Your task to perform on an android device: change the clock style Image 0: 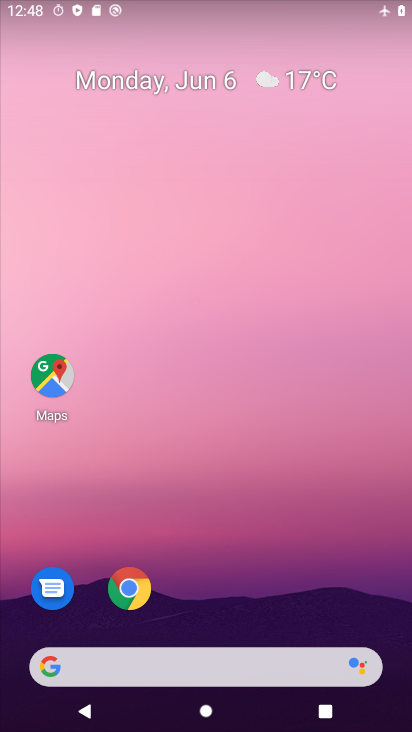
Step 0: drag from (276, 309) to (288, 150)
Your task to perform on an android device: change the clock style Image 1: 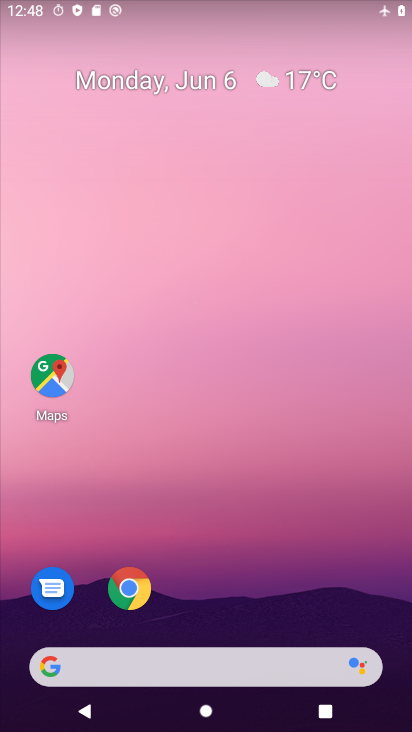
Step 1: drag from (257, 423) to (268, 21)
Your task to perform on an android device: change the clock style Image 2: 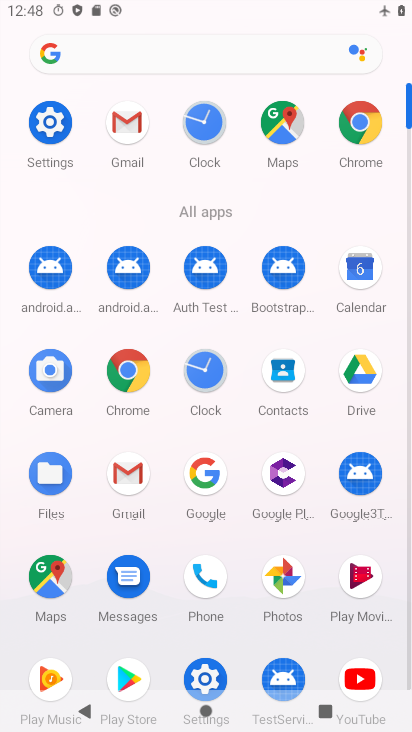
Step 2: click (209, 376)
Your task to perform on an android device: change the clock style Image 3: 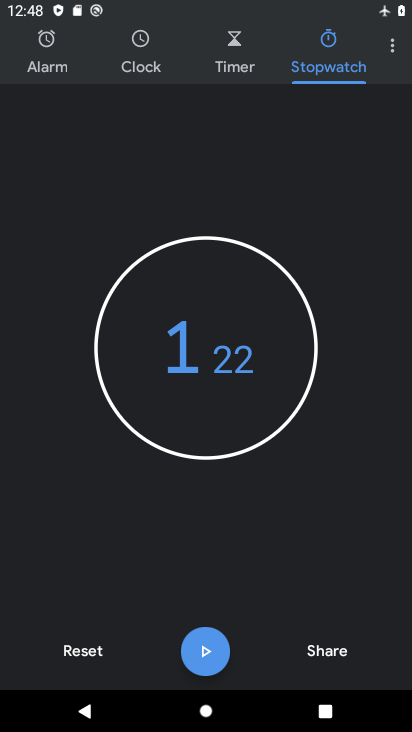
Step 3: click (399, 44)
Your task to perform on an android device: change the clock style Image 4: 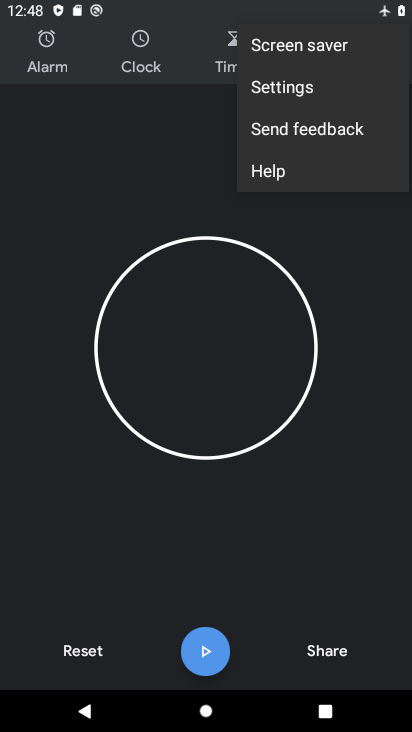
Step 4: click (296, 93)
Your task to perform on an android device: change the clock style Image 5: 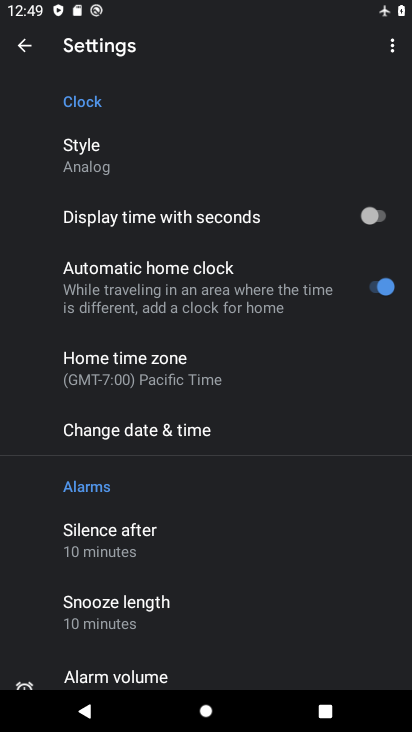
Step 5: click (117, 141)
Your task to perform on an android device: change the clock style Image 6: 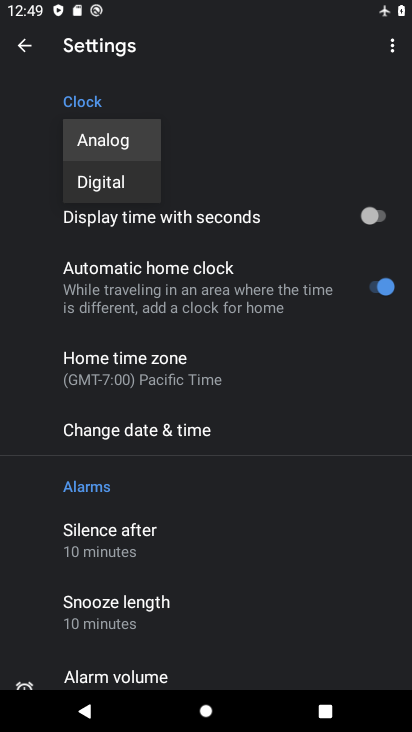
Step 6: click (139, 178)
Your task to perform on an android device: change the clock style Image 7: 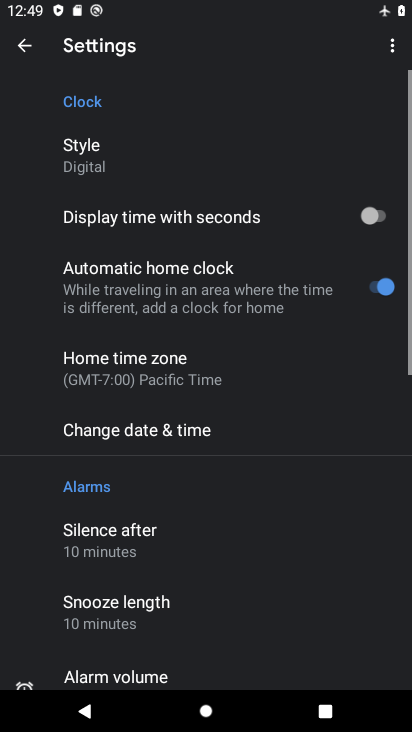
Step 7: task complete